Your task to perform on an android device: Go to eBay Image 0: 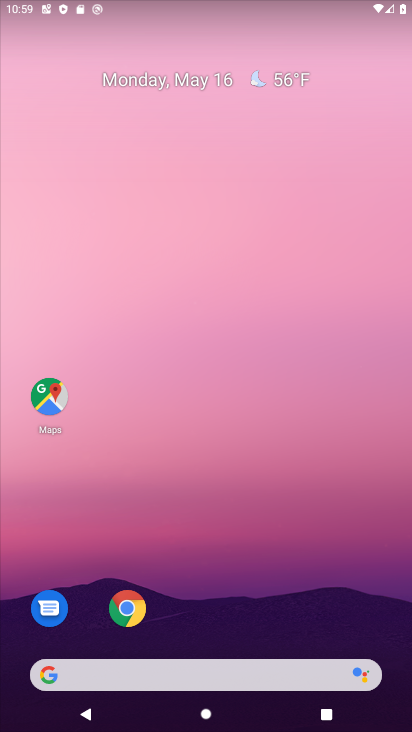
Step 0: drag from (375, 575) to (323, 191)
Your task to perform on an android device: Go to eBay Image 1: 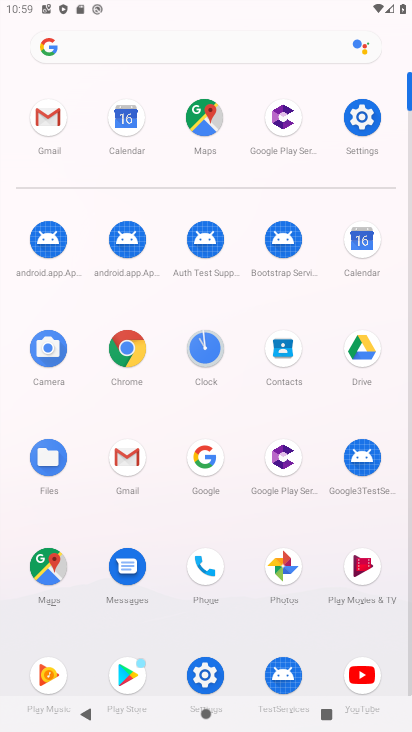
Step 1: click (122, 359)
Your task to perform on an android device: Go to eBay Image 2: 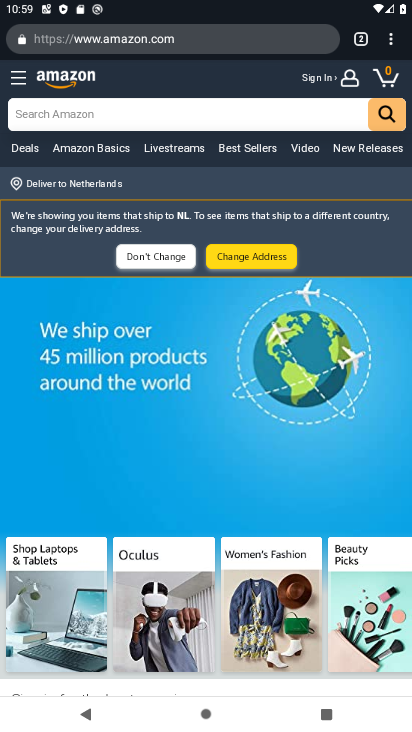
Step 2: click (256, 36)
Your task to perform on an android device: Go to eBay Image 3: 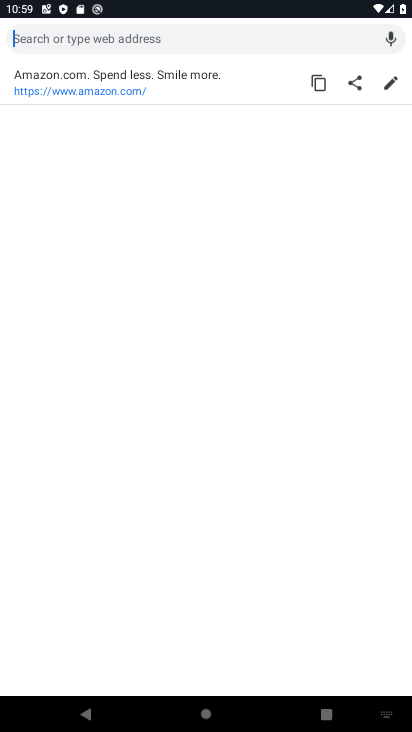
Step 3: type "ebay"
Your task to perform on an android device: Go to eBay Image 4: 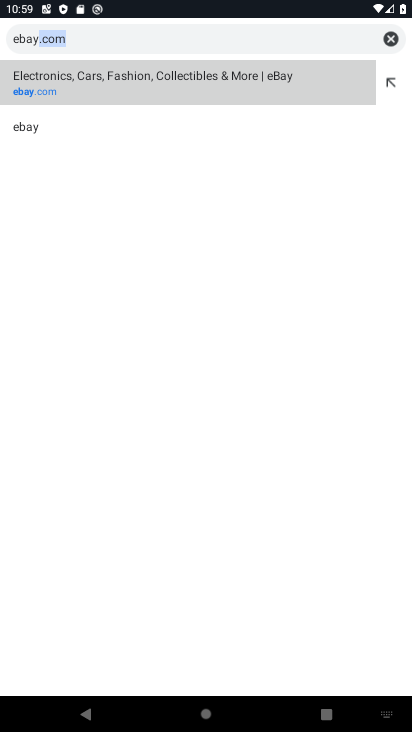
Step 4: click (108, 93)
Your task to perform on an android device: Go to eBay Image 5: 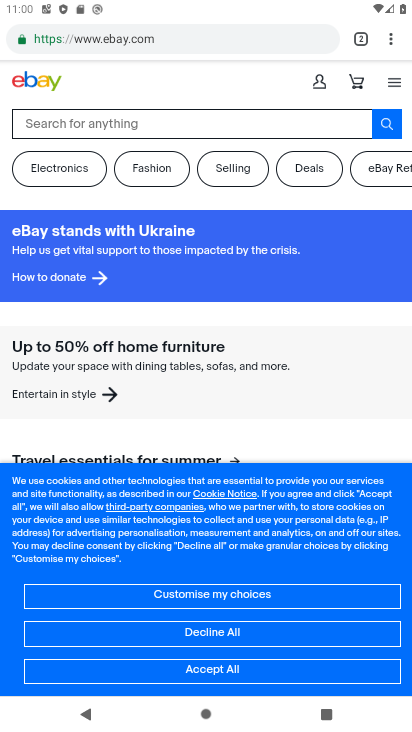
Step 5: task complete